Your task to perform on an android device: Open internet settings Image 0: 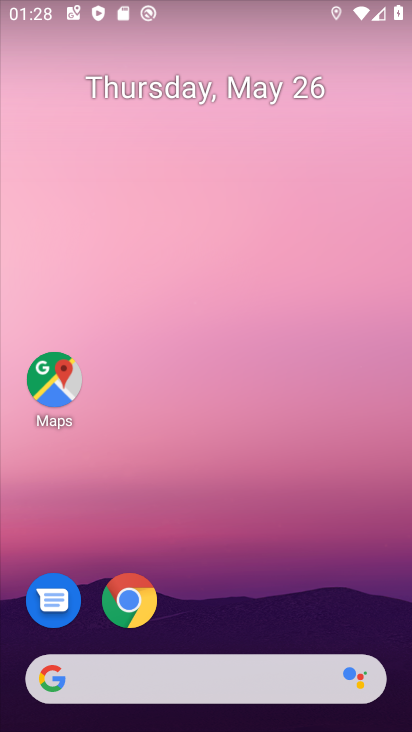
Step 0: click (48, 388)
Your task to perform on an android device: Open internet settings Image 1: 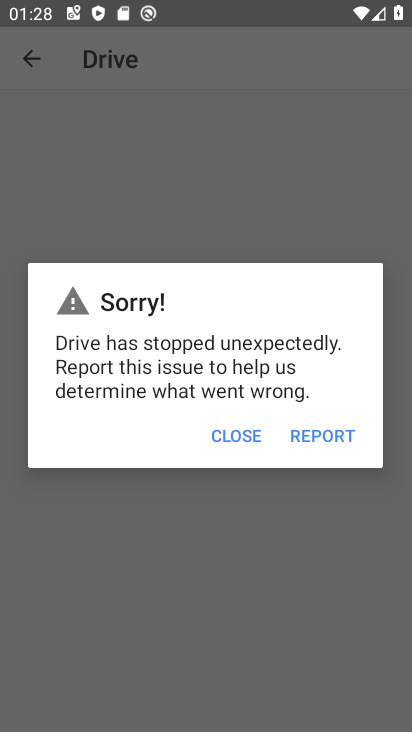
Step 1: press home button
Your task to perform on an android device: Open internet settings Image 2: 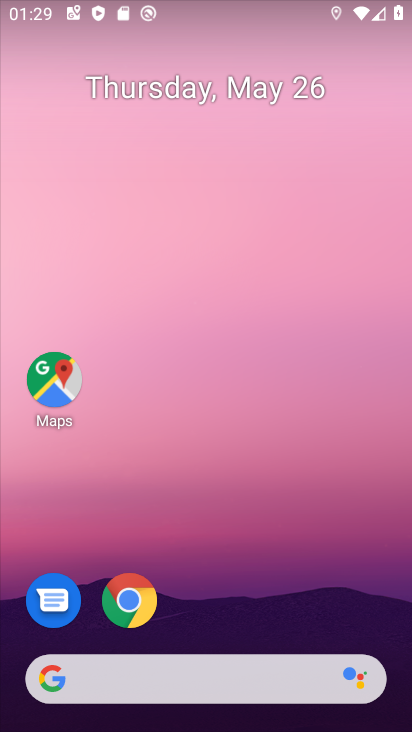
Step 2: drag from (291, 548) to (264, 3)
Your task to perform on an android device: Open internet settings Image 3: 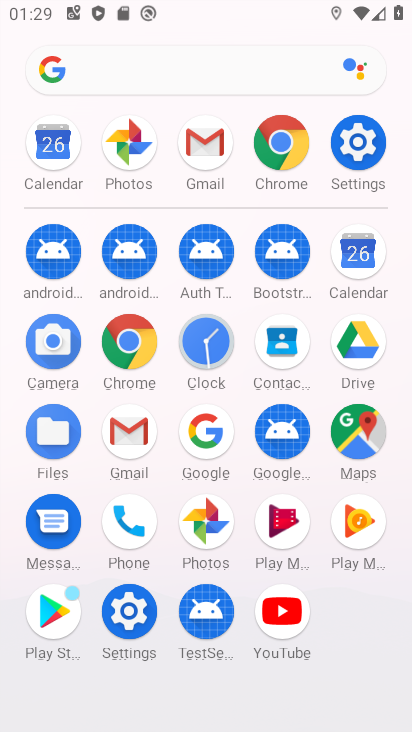
Step 3: click (363, 142)
Your task to perform on an android device: Open internet settings Image 4: 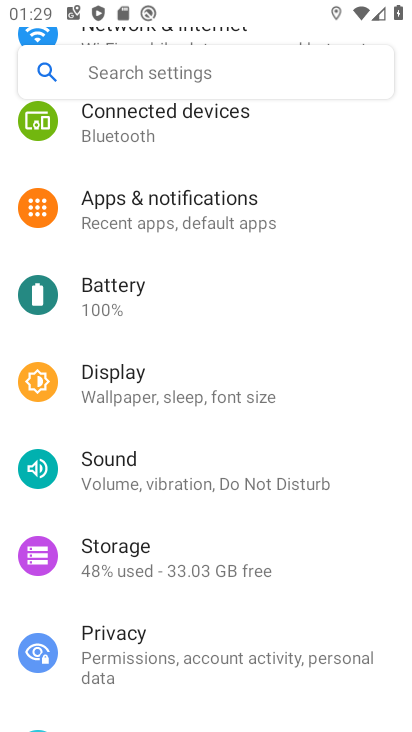
Step 4: drag from (269, 191) to (374, 615)
Your task to perform on an android device: Open internet settings Image 5: 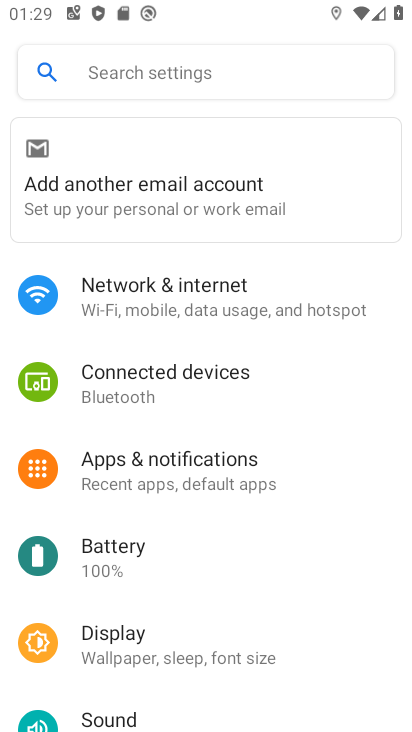
Step 5: click (196, 314)
Your task to perform on an android device: Open internet settings Image 6: 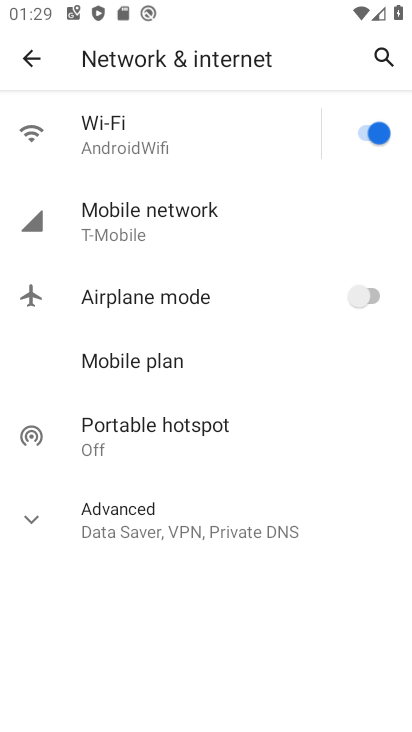
Step 6: click (282, 228)
Your task to perform on an android device: Open internet settings Image 7: 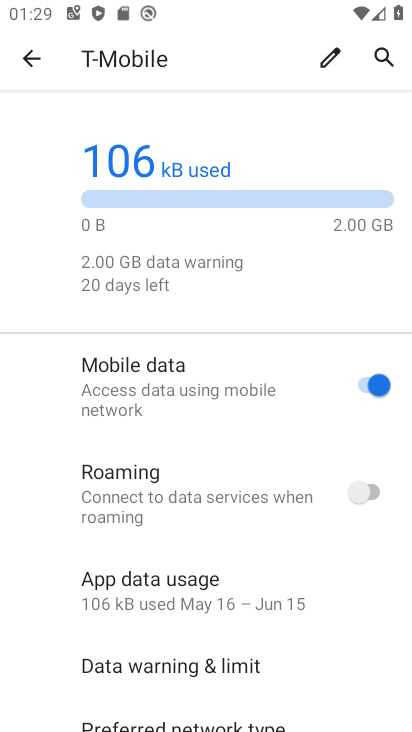
Step 7: task complete